Your task to perform on an android device: turn on wifi Image 0: 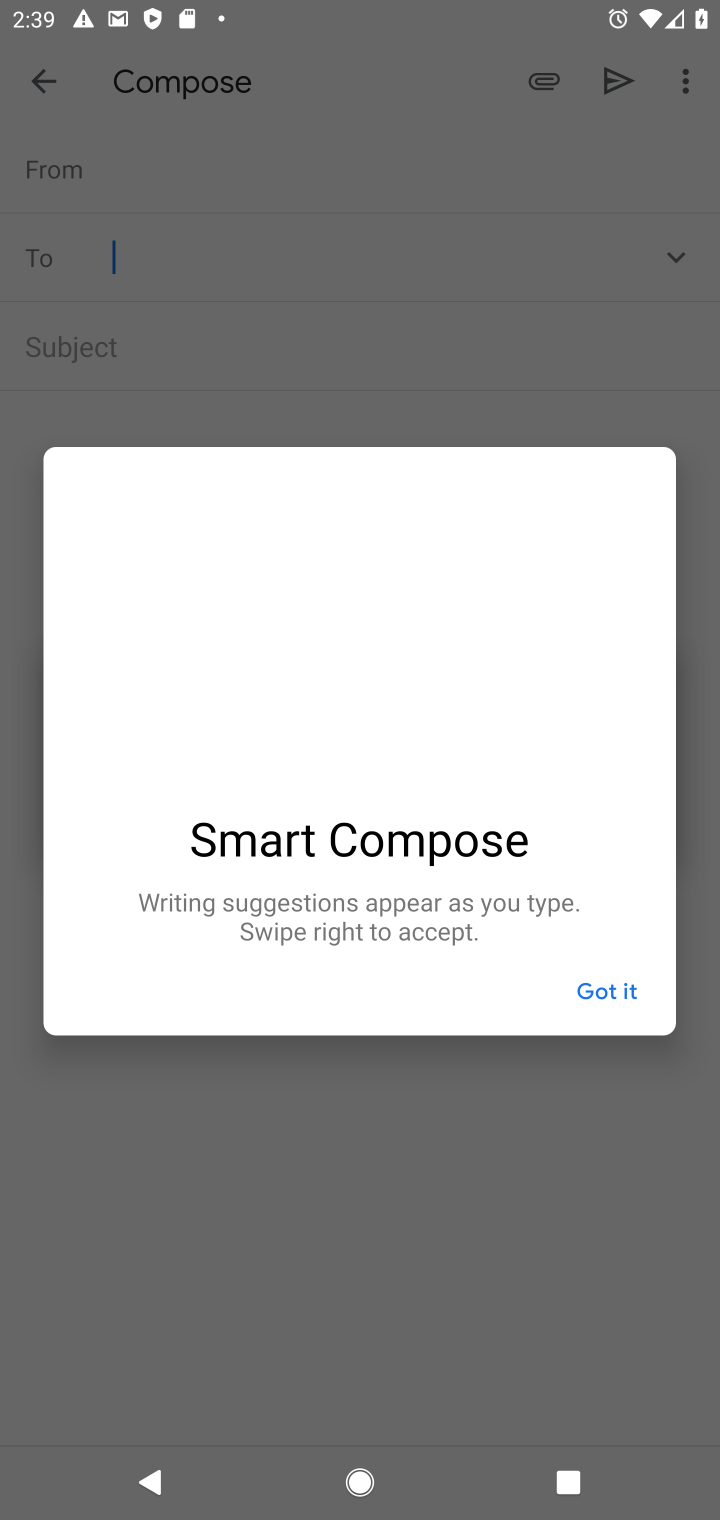
Step 0: press home button
Your task to perform on an android device: turn on wifi Image 1: 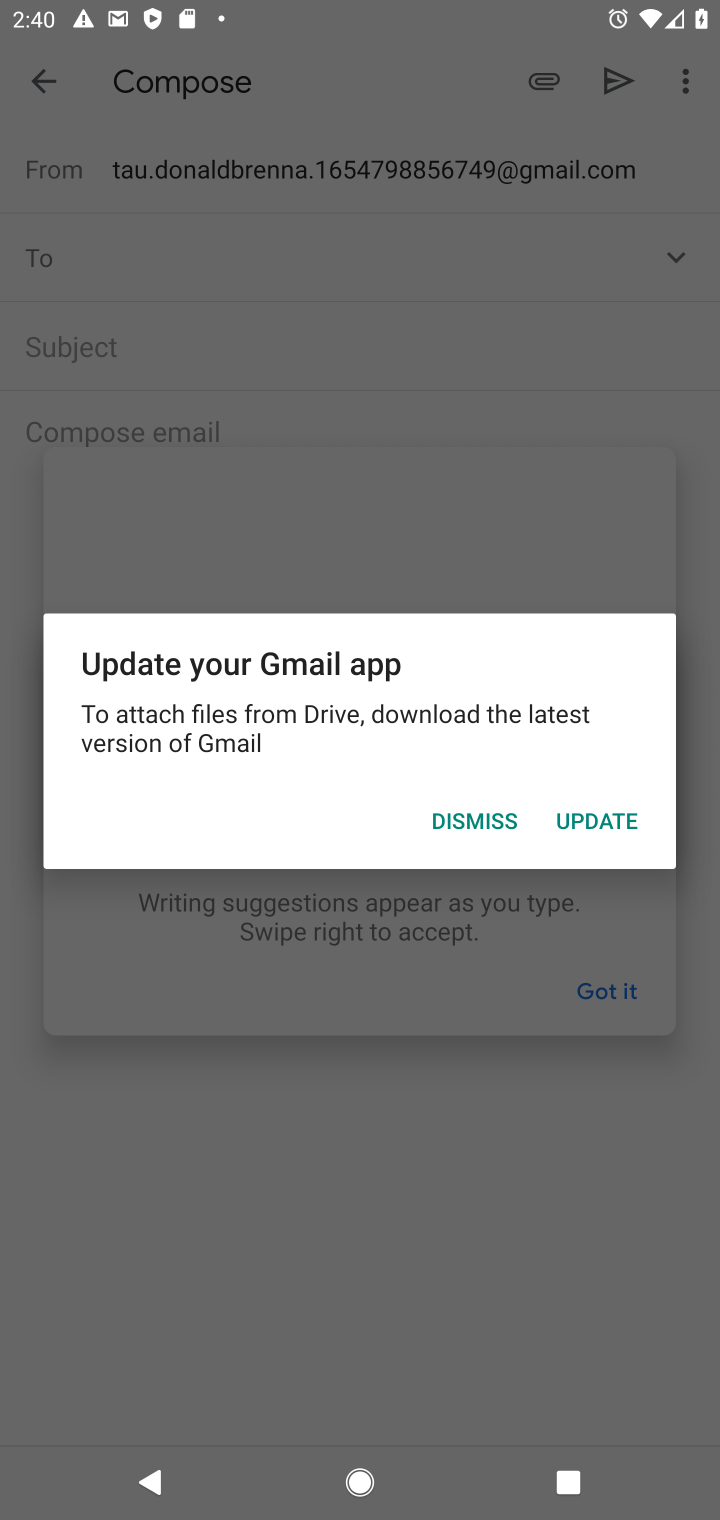
Step 1: drag from (349, 1265) to (321, 1147)
Your task to perform on an android device: turn on wifi Image 2: 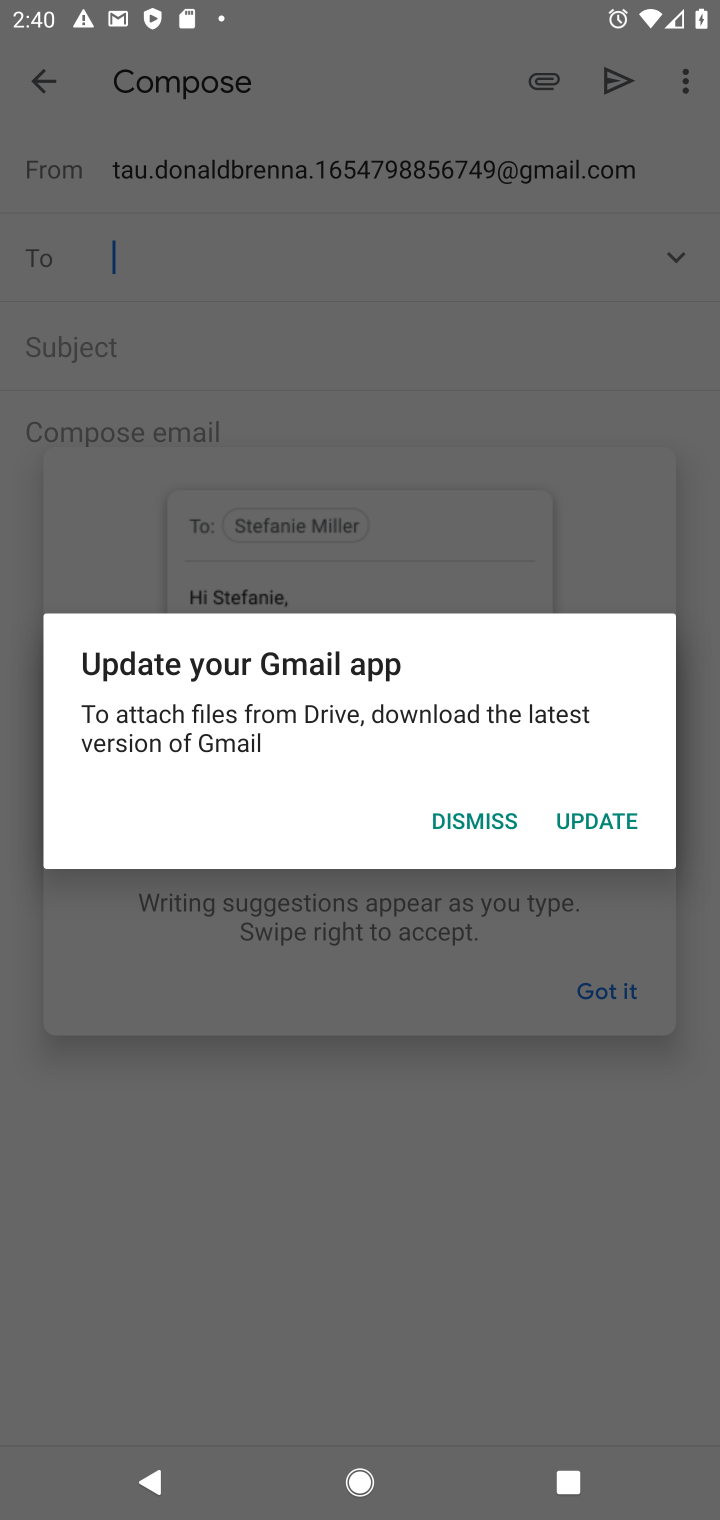
Step 2: press home button
Your task to perform on an android device: turn on wifi Image 3: 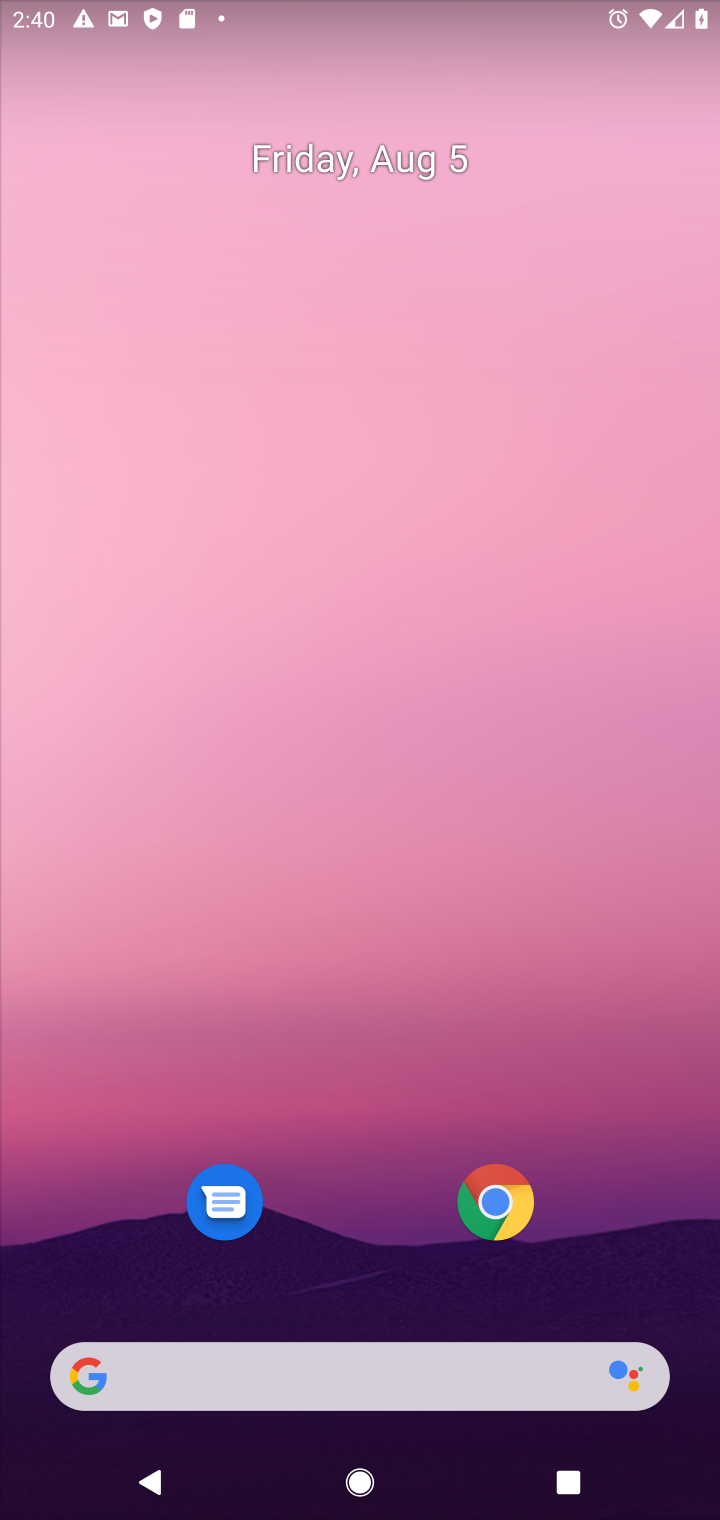
Step 3: drag from (426, 1290) to (274, 78)
Your task to perform on an android device: turn on wifi Image 4: 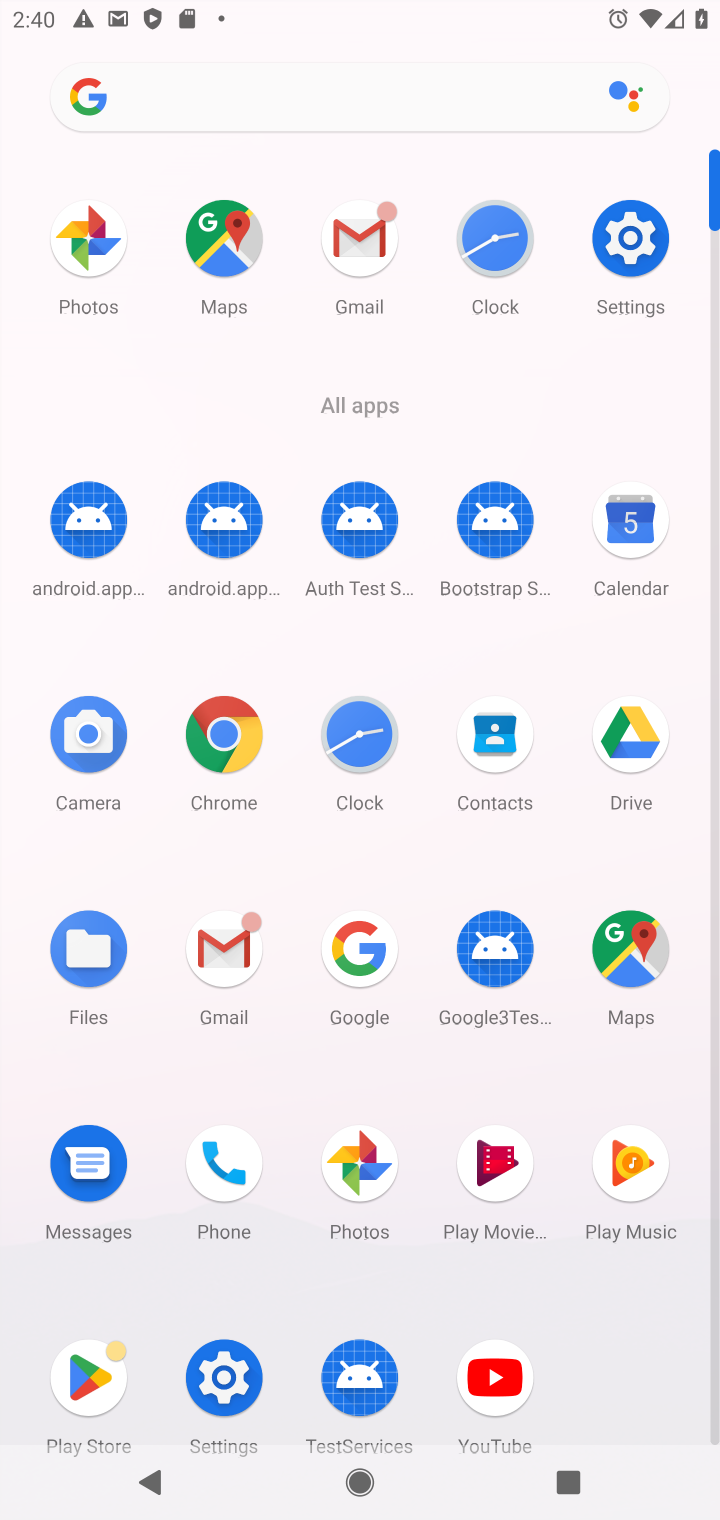
Step 4: click (609, 245)
Your task to perform on an android device: turn on wifi Image 5: 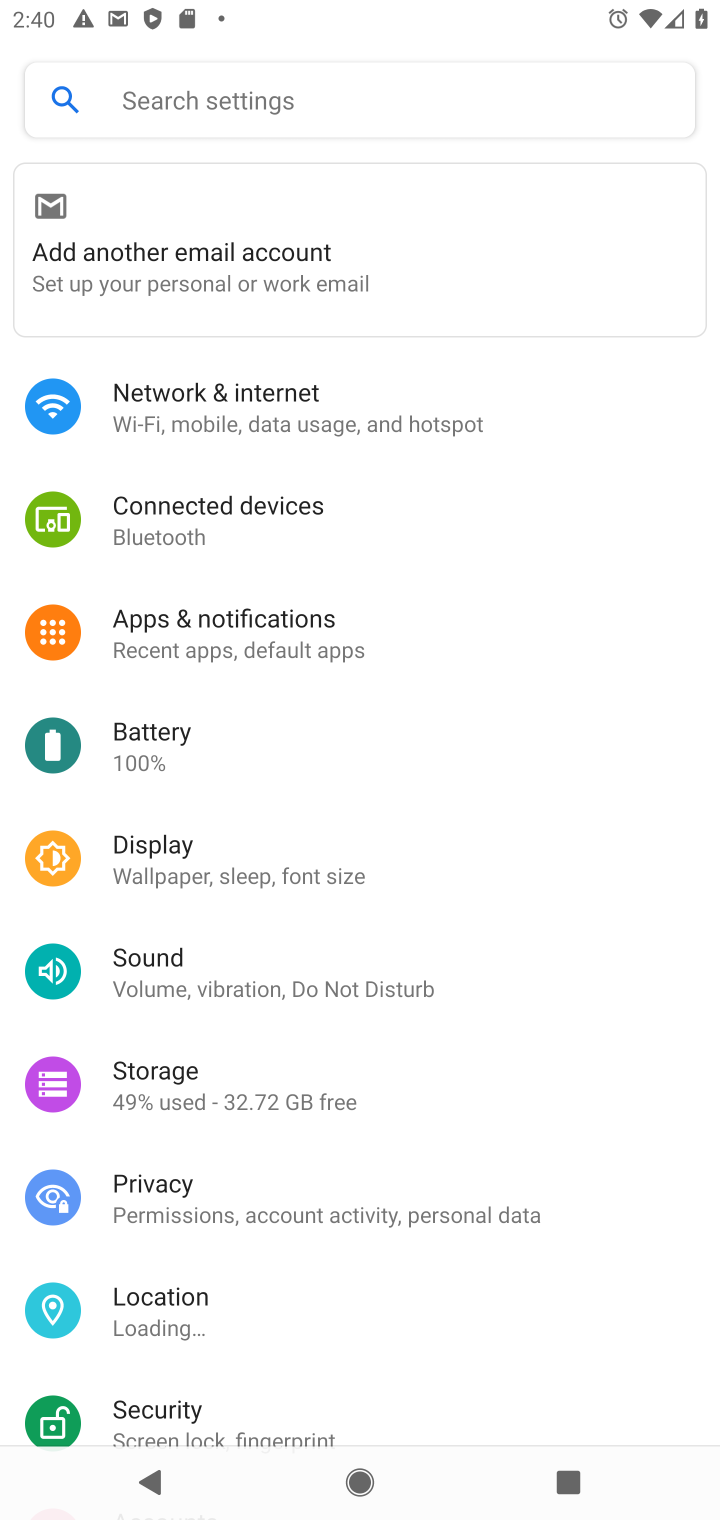
Step 5: click (247, 369)
Your task to perform on an android device: turn on wifi Image 6: 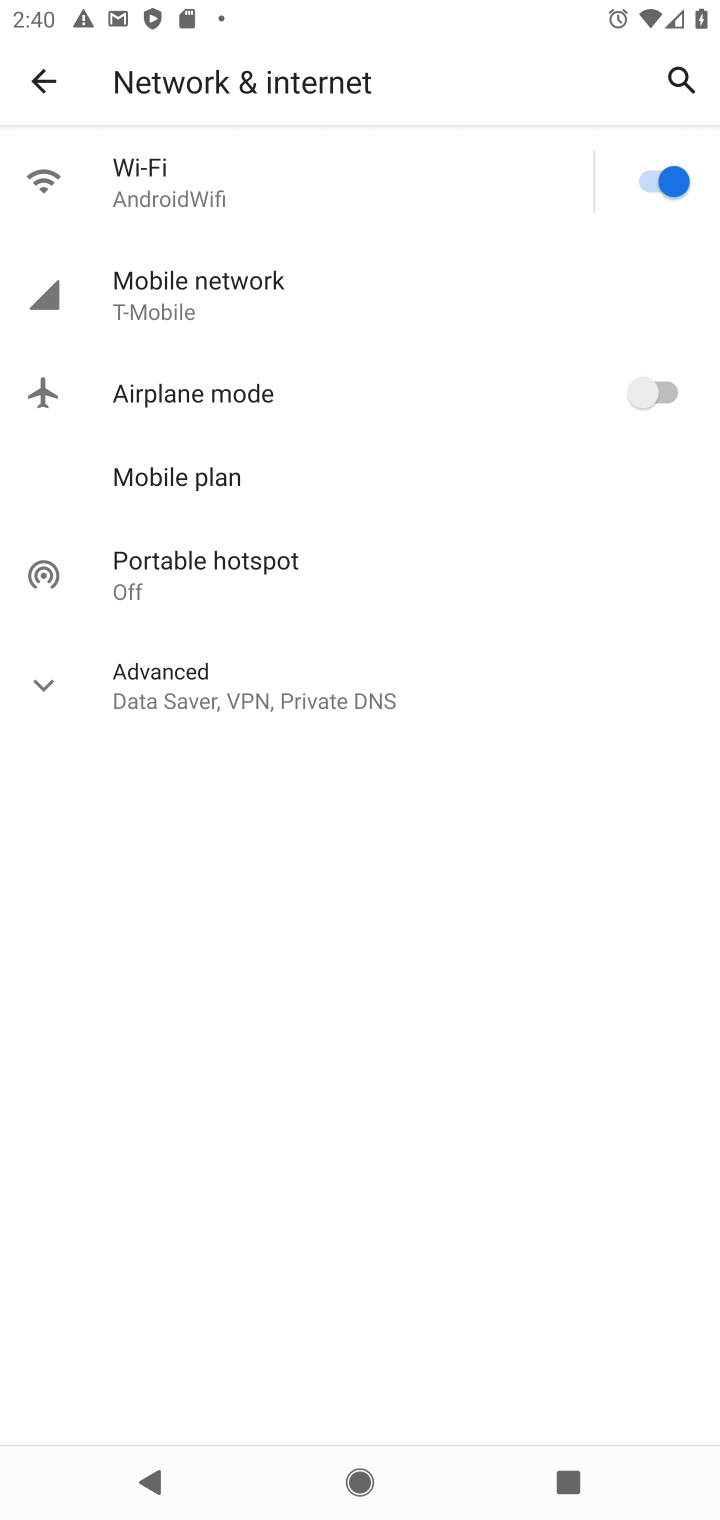
Step 6: click (292, 188)
Your task to perform on an android device: turn on wifi Image 7: 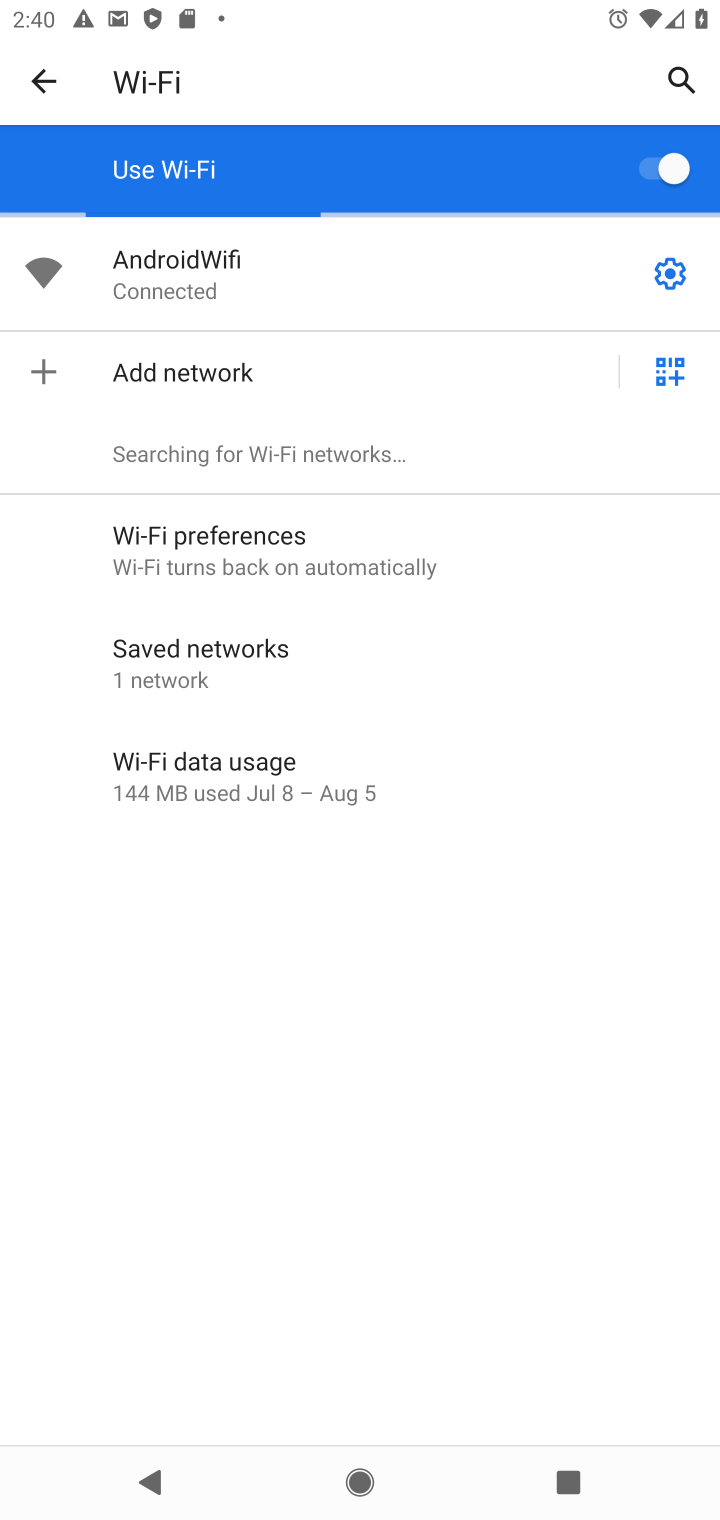
Step 7: task complete